Your task to perform on an android device: Go to eBay Image 0: 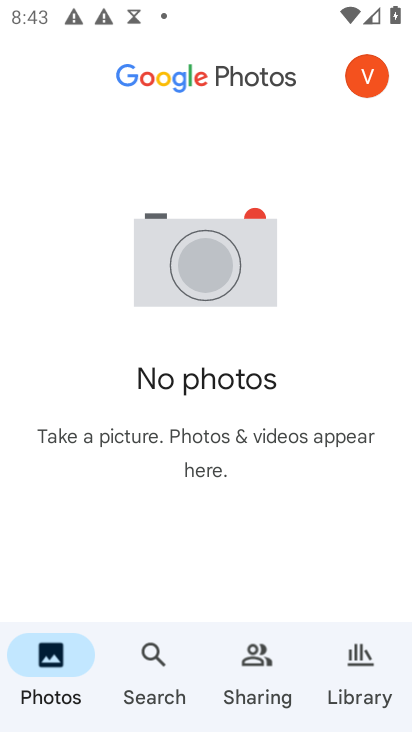
Step 0: press home button
Your task to perform on an android device: Go to eBay Image 1: 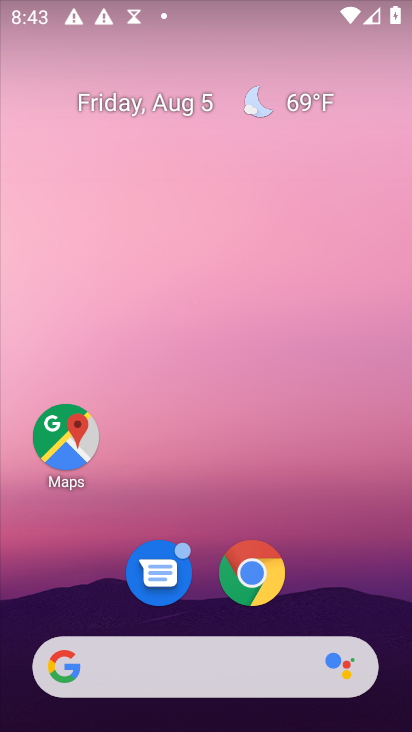
Step 1: click (255, 572)
Your task to perform on an android device: Go to eBay Image 2: 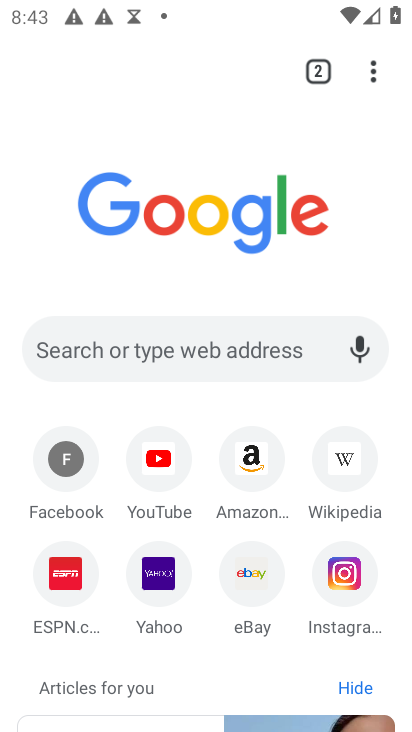
Step 2: click (241, 352)
Your task to perform on an android device: Go to eBay Image 3: 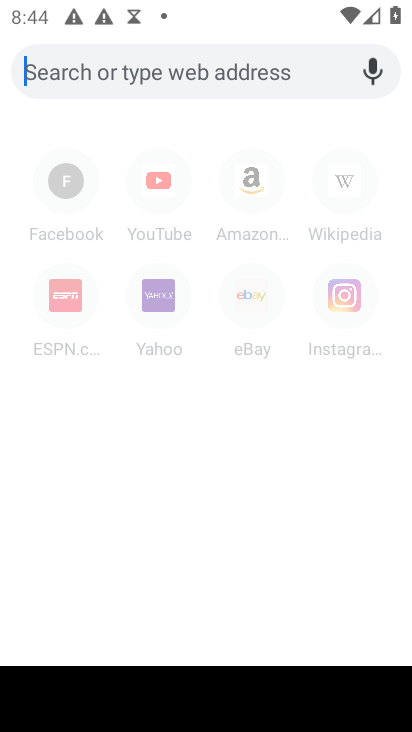
Step 3: type "eBay"
Your task to perform on an android device: Go to eBay Image 4: 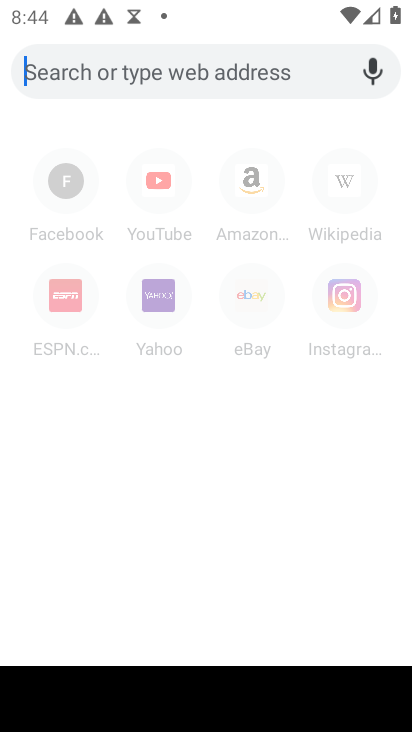
Step 4: click (259, 303)
Your task to perform on an android device: Go to eBay Image 5: 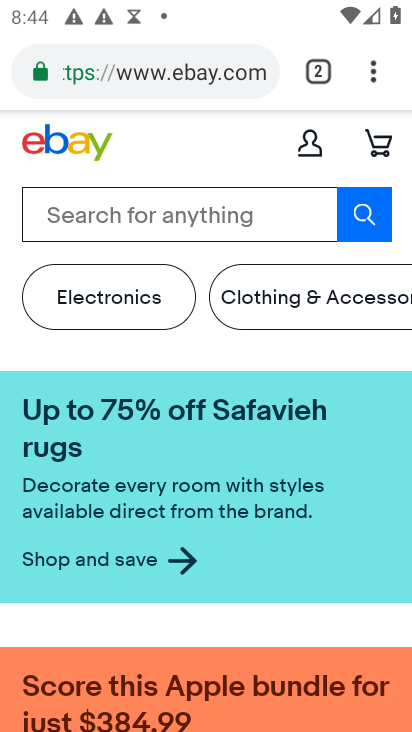
Step 5: task complete